Your task to perform on an android device: turn pop-ups off in chrome Image 0: 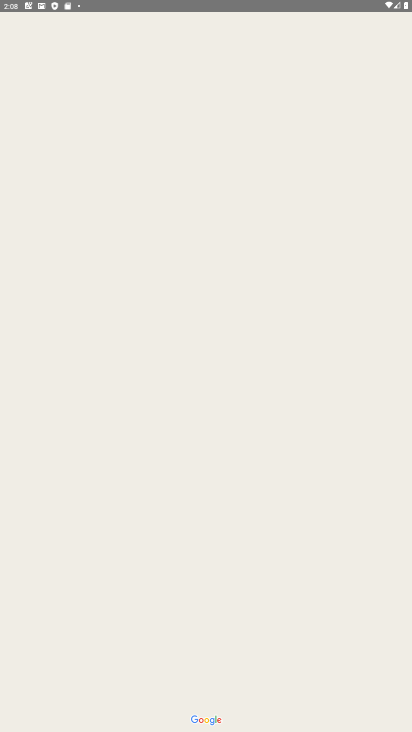
Step 0: press home button
Your task to perform on an android device: turn pop-ups off in chrome Image 1: 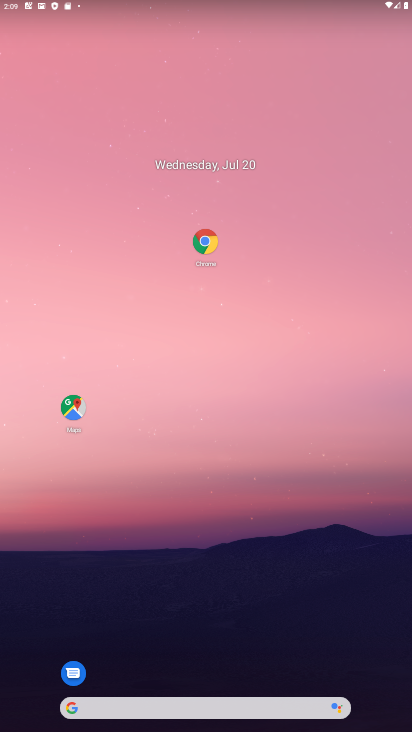
Step 1: click (204, 239)
Your task to perform on an android device: turn pop-ups off in chrome Image 2: 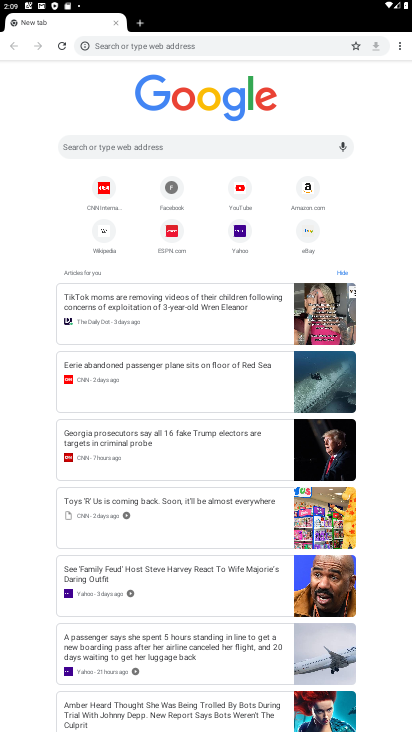
Step 2: click (395, 52)
Your task to perform on an android device: turn pop-ups off in chrome Image 3: 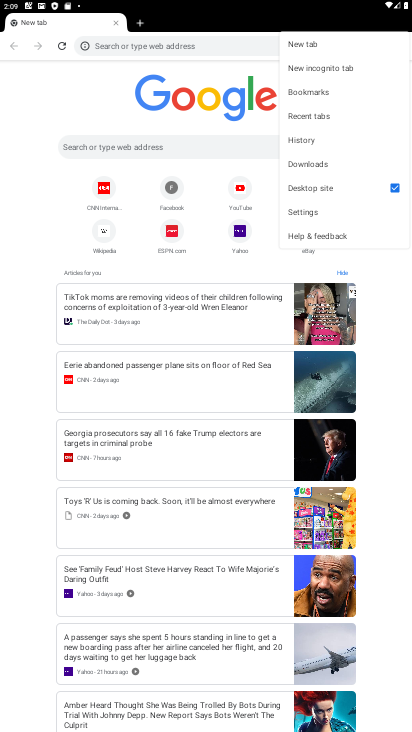
Step 3: click (314, 209)
Your task to perform on an android device: turn pop-ups off in chrome Image 4: 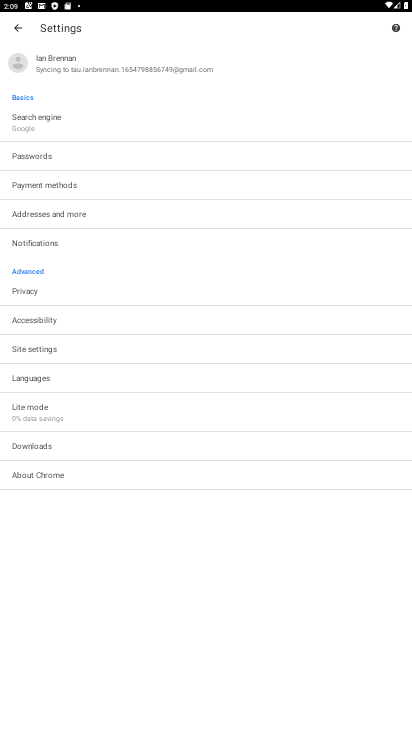
Step 4: click (38, 343)
Your task to perform on an android device: turn pop-ups off in chrome Image 5: 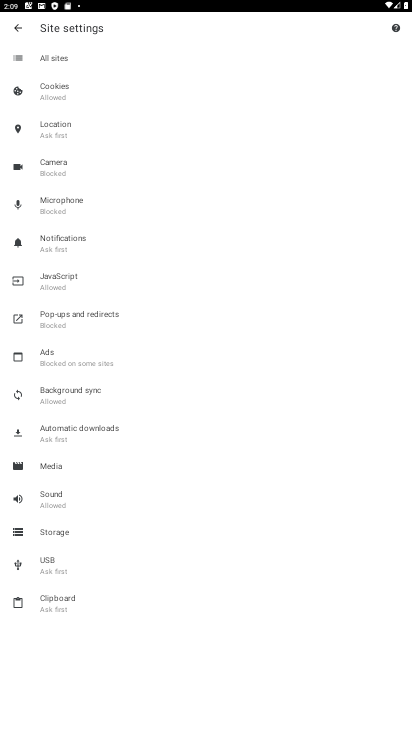
Step 5: click (107, 321)
Your task to perform on an android device: turn pop-ups off in chrome Image 6: 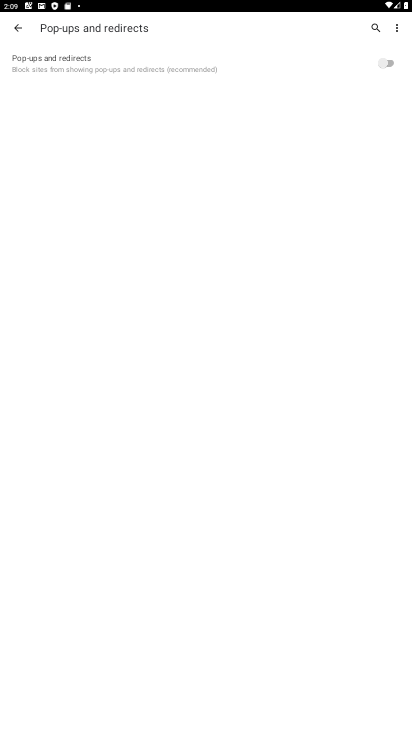
Step 6: task complete